Your task to perform on an android device: open chrome and create a bookmark for the current page Image 0: 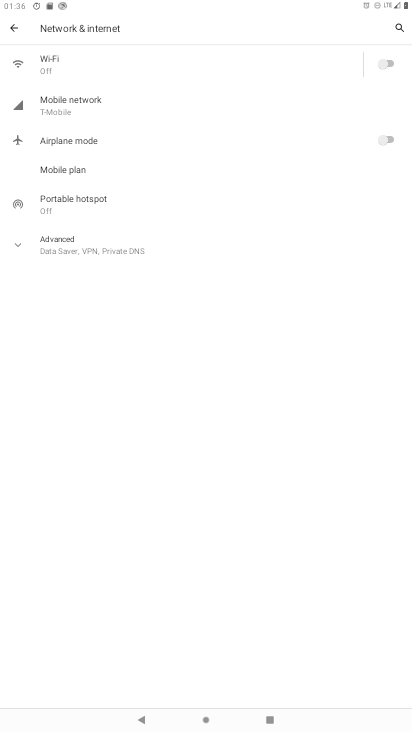
Step 0: press home button
Your task to perform on an android device: open chrome and create a bookmark for the current page Image 1: 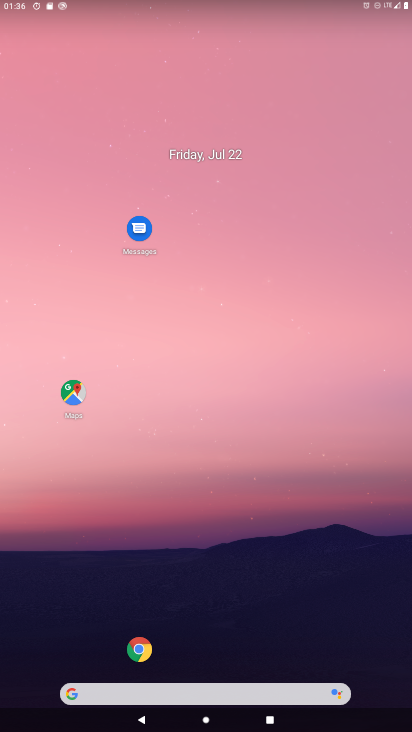
Step 1: click (141, 651)
Your task to perform on an android device: open chrome and create a bookmark for the current page Image 2: 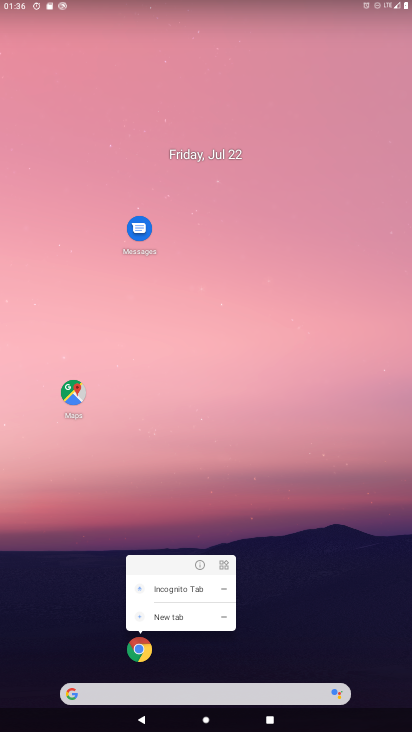
Step 2: click (141, 647)
Your task to perform on an android device: open chrome and create a bookmark for the current page Image 3: 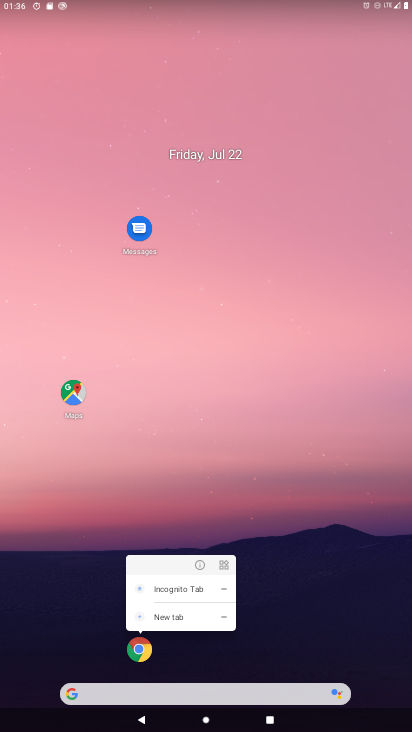
Step 3: click (134, 648)
Your task to perform on an android device: open chrome and create a bookmark for the current page Image 4: 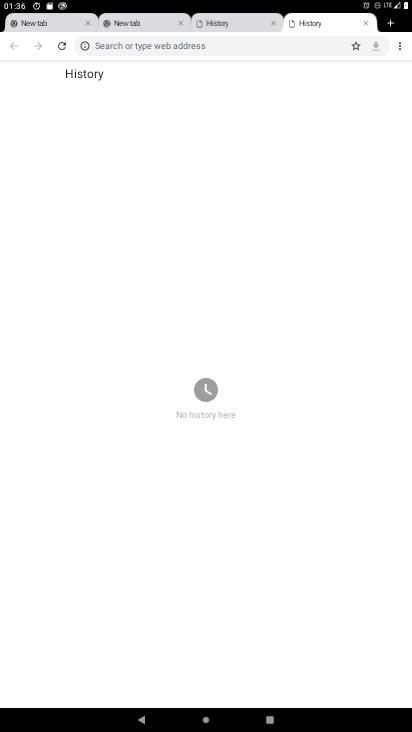
Step 4: click (402, 43)
Your task to perform on an android device: open chrome and create a bookmark for the current page Image 5: 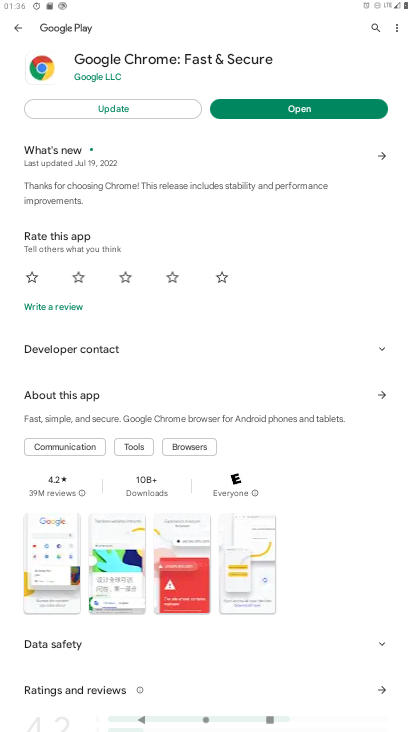
Step 5: click (311, 102)
Your task to perform on an android device: open chrome and create a bookmark for the current page Image 6: 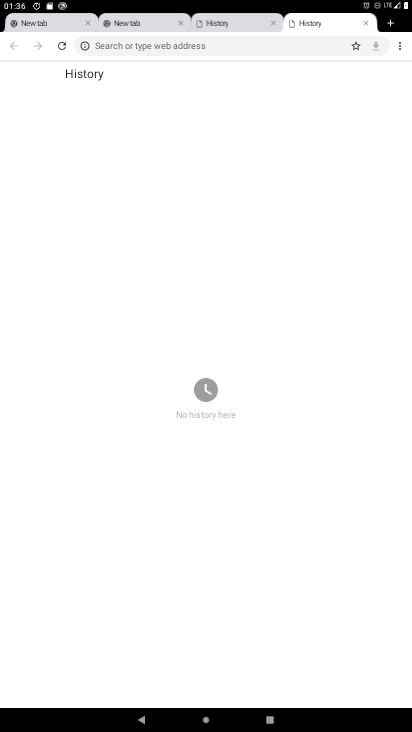
Step 6: click (399, 43)
Your task to perform on an android device: open chrome and create a bookmark for the current page Image 7: 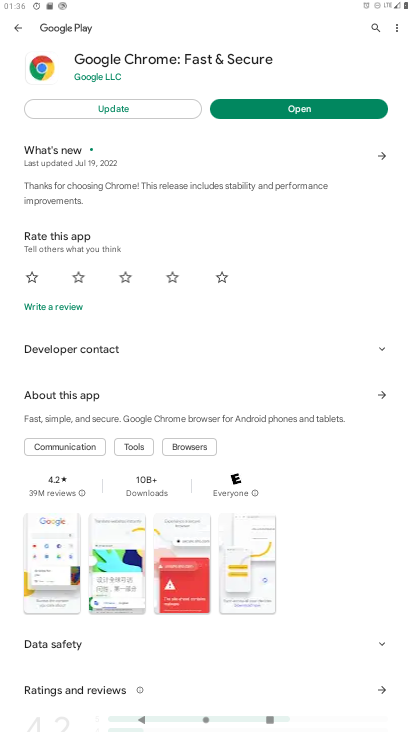
Step 7: task complete